Your task to perform on an android device: toggle sleep mode Image 0: 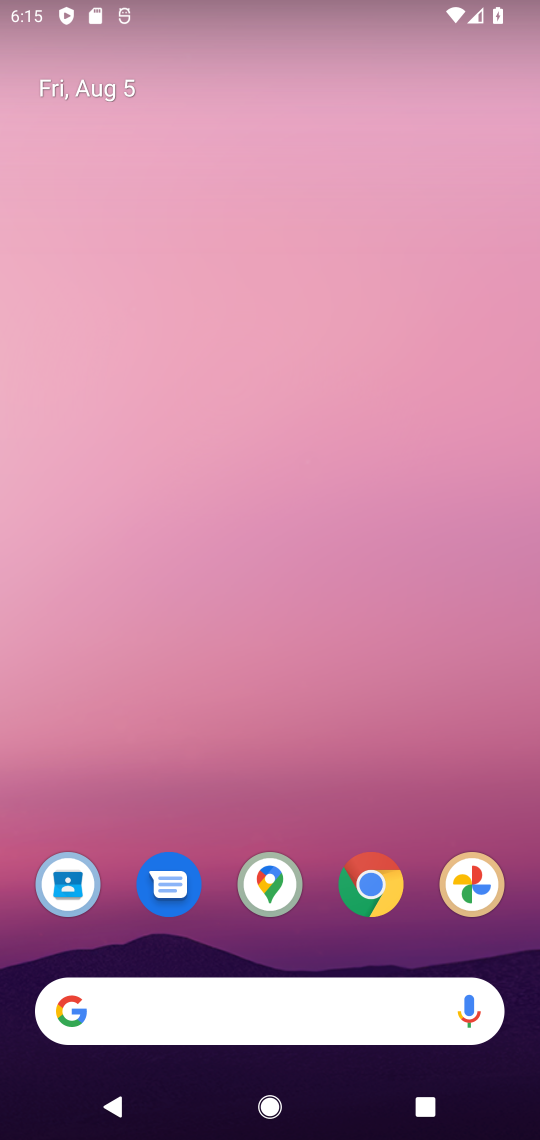
Step 0: drag from (314, 926) to (344, 8)
Your task to perform on an android device: toggle sleep mode Image 1: 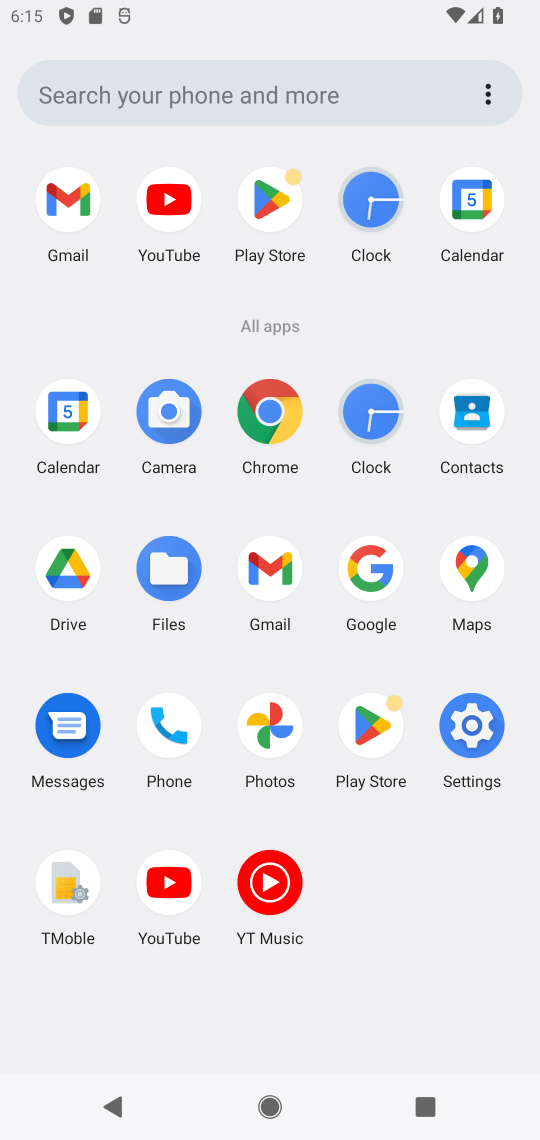
Step 1: click (464, 719)
Your task to perform on an android device: toggle sleep mode Image 2: 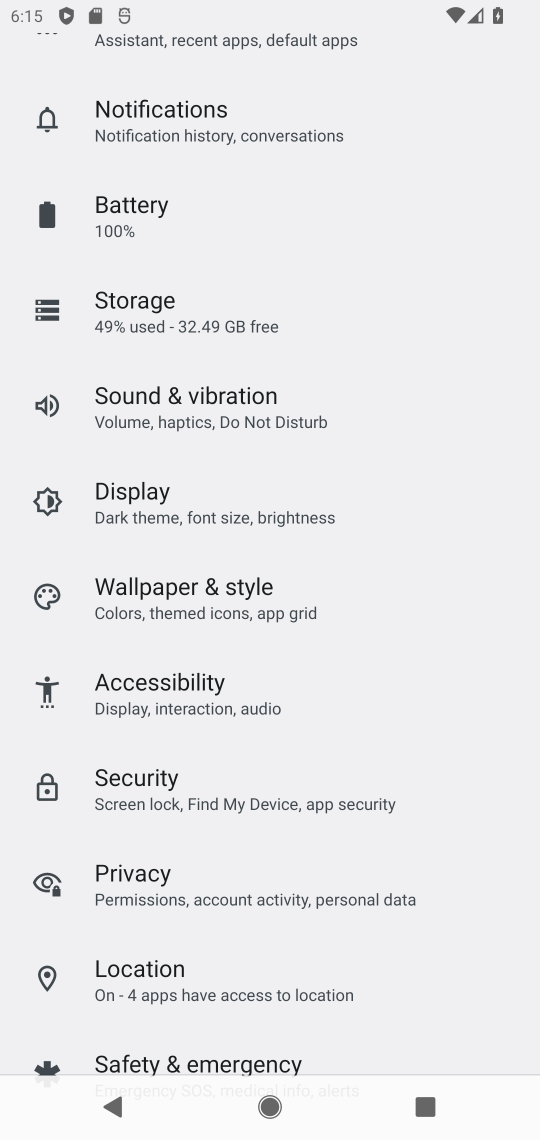
Step 2: click (190, 492)
Your task to perform on an android device: toggle sleep mode Image 3: 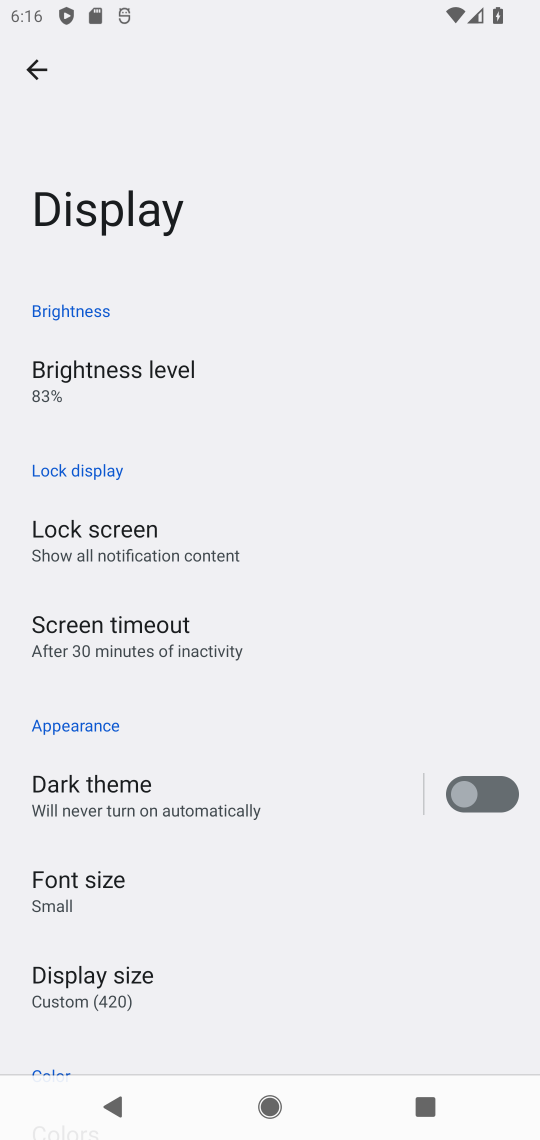
Step 3: task complete